Your task to perform on an android device: toggle data saver in the chrome app Image 0: 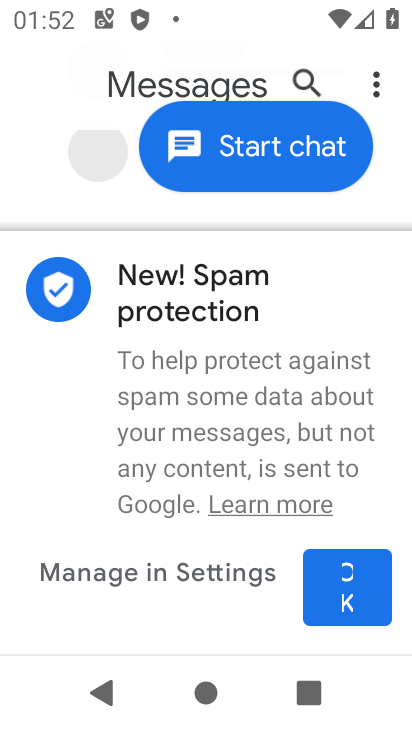
Step 0: press home button
Your task to perform on an android device: toggle data saver in the chrome app Image 1: 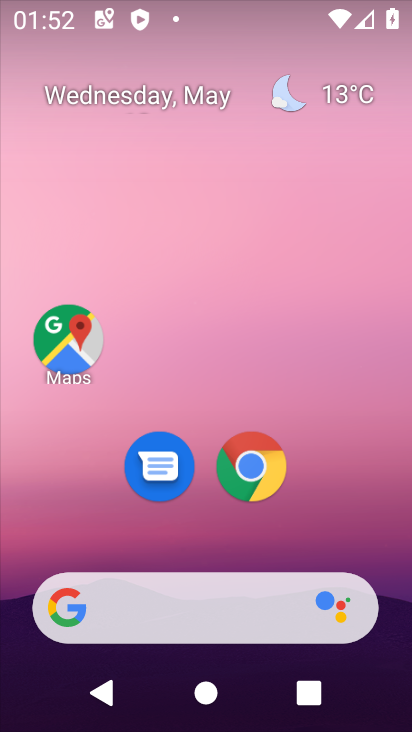
Step 1: drag from (350, 522) to (320, 23)
Your task to perform on an android device: toggle data saver in the chrome app Image 2: 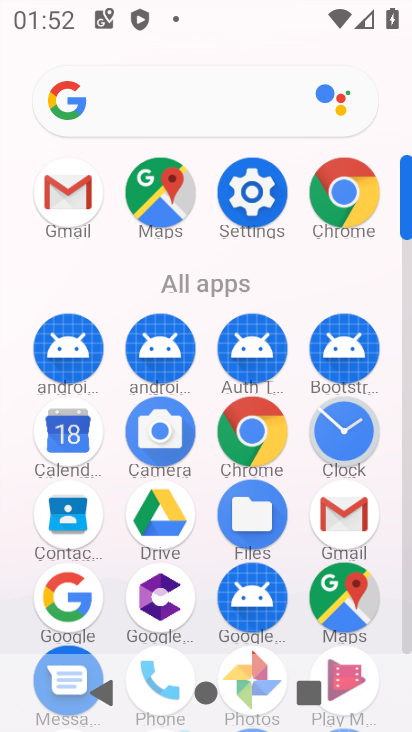
Step 2: click (330, 192)
Your task to perform on an android device: toggle data saver in the chrome app Image 3: 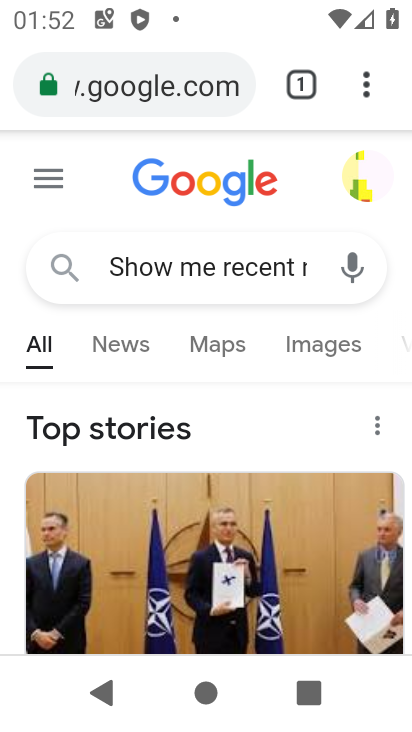
Step 3: drag from (373, 95) to (131, 518)
Your task to perform on an android device: toggle data saver in the chrome app Image 4: 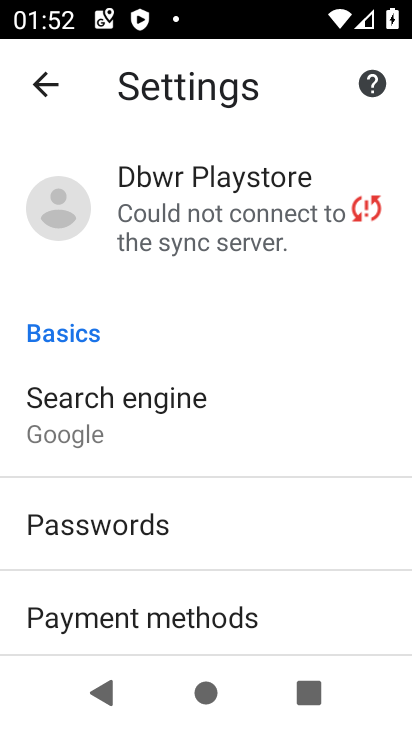
Step 4: drag from (155, 337) to (158, 8)
Your task to perform on an android device: toggle data saver in the chrome app Image 5: 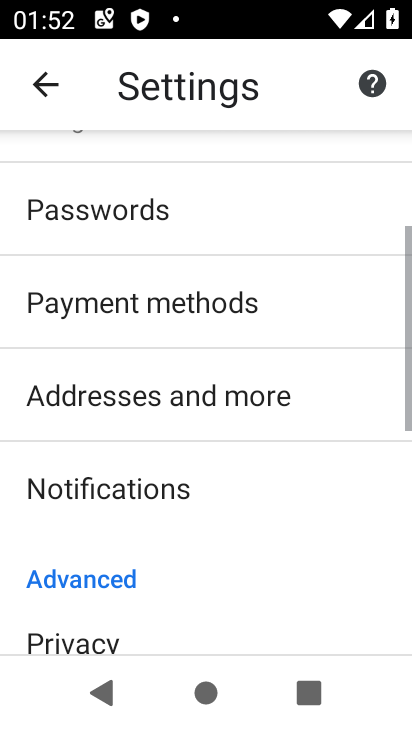
Step 5: drag from (253, 432) to (243, 115)
Your task to perform on an android device: toggle data saver in the chrome app Image 6: 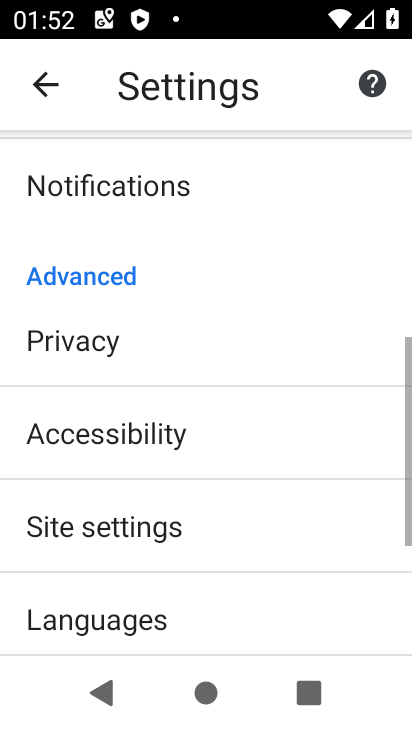
Step 6: drag from (225, 216) to (253, 110)
Your task to perform on an android device: toggle data saver in the chrome app Image 7: 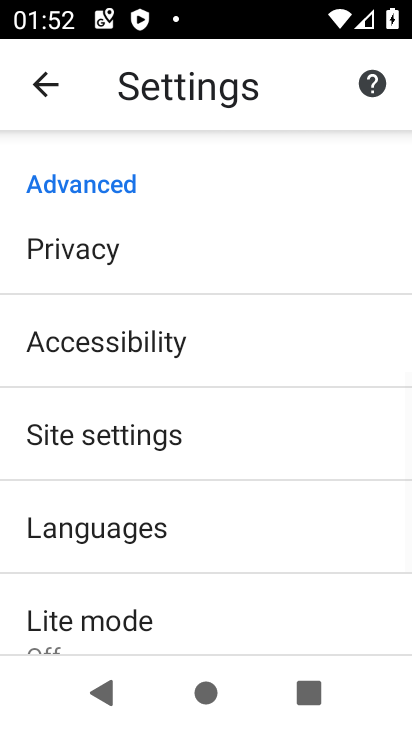
Step 7: drag from (249, 549) to (247, 229)
Your task to perform on an android device: toggle data saver in the chrome app Image 8: 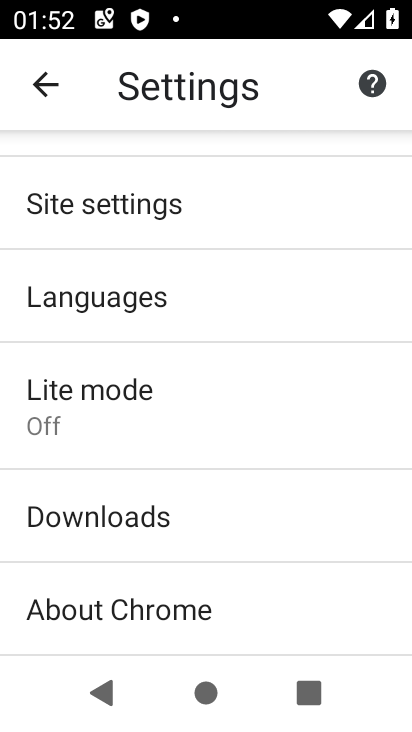
Step 8: click (151, 421)
Your task to perform on an android device: toggle data saver in the chrome app Image 9: 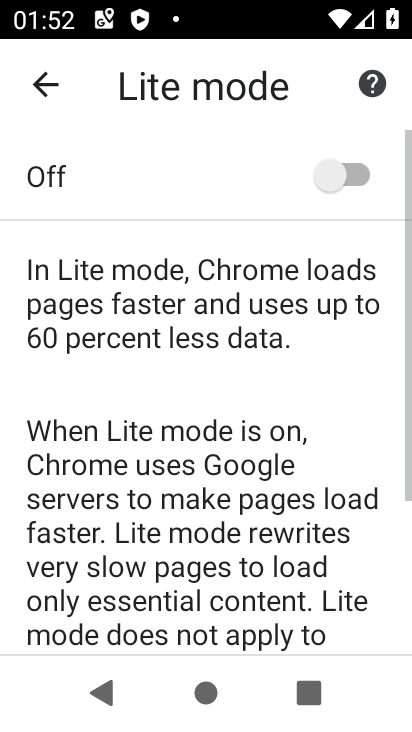
Step 9: click (358, 185)
Your task to perform on an android device: toggle data saver in the chrome app Image 10: 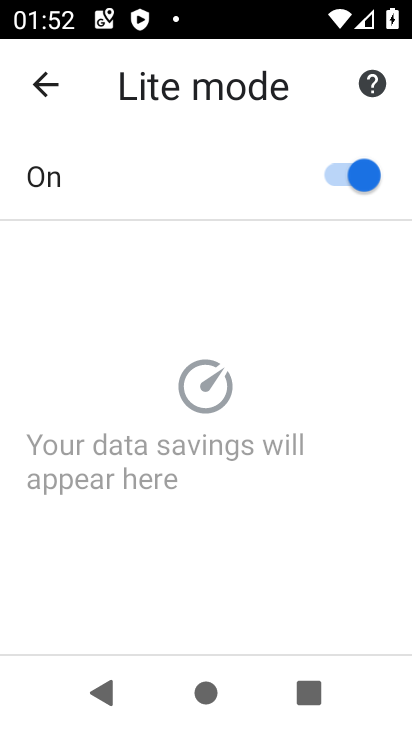
Step 10: task complete